Your task to perform on an android device: See recent photos Image 0: 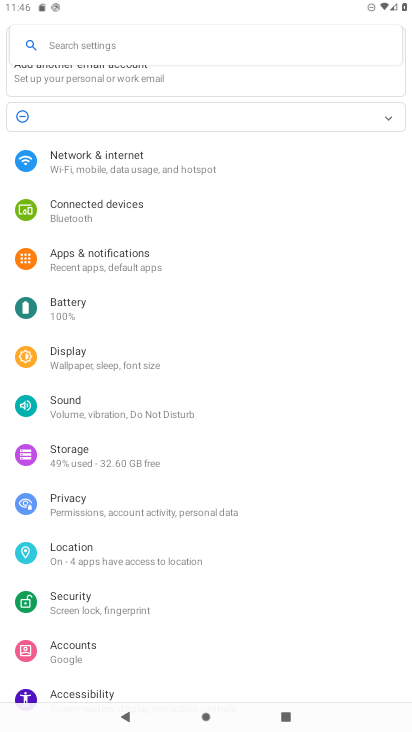
Step 0: press home button
Your task to perform on an android device: See recent photos Image 1: 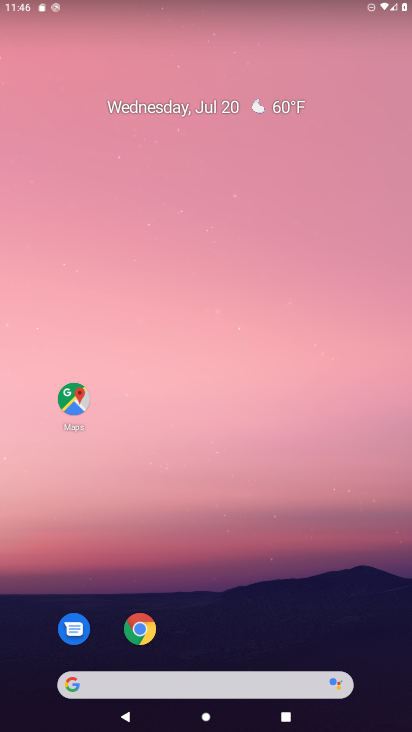
Step 1: drag from (215, 641) to (227, 26)
Your task to perform on an android device: See recent photos Image 2: 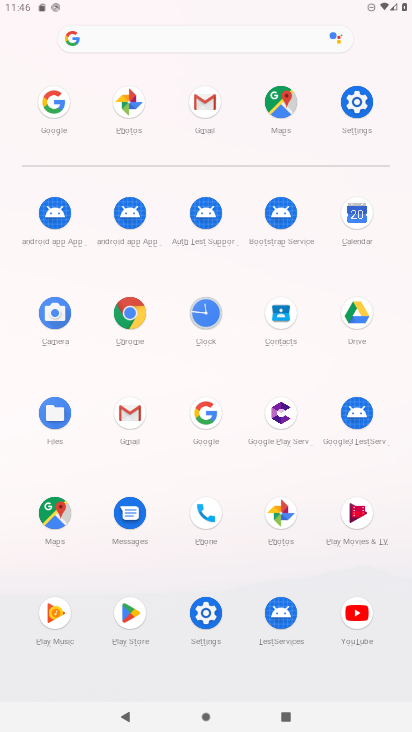
Step 2: click (274, 525)
Your task to perform on an android device: See recent photos Image 3: 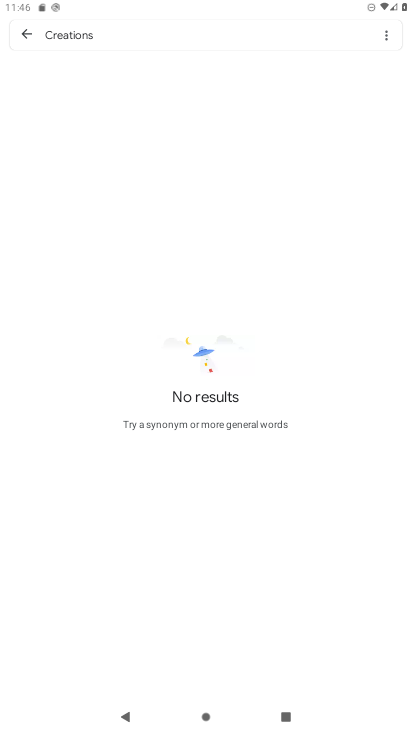
Step 3: click (21, 39)
Your task to perform on an android device: See recent photos Image 4: 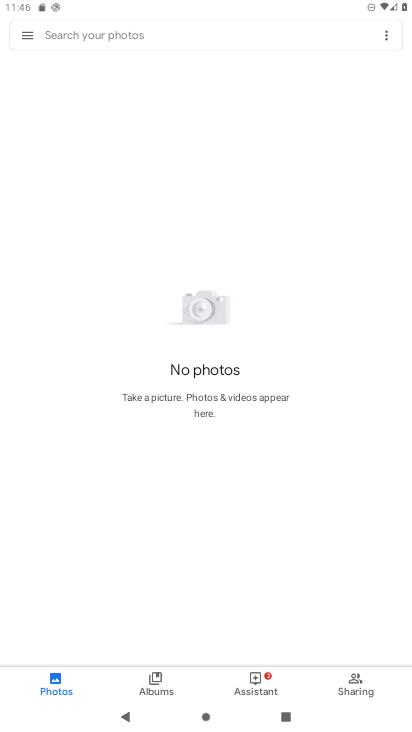
Step 4: task complete